Your task to perform on an android device: Open display settings Image 0: 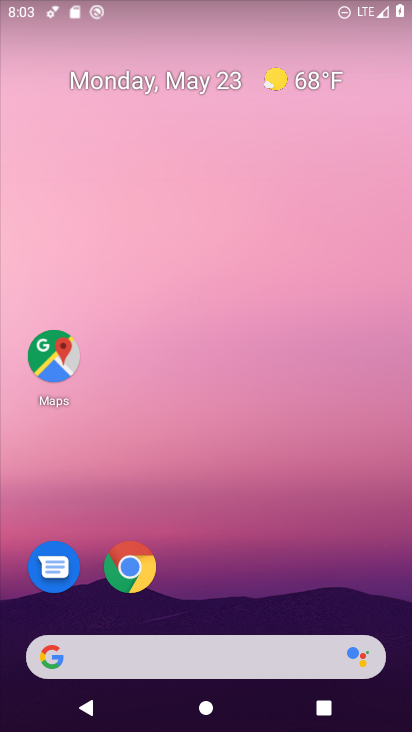
Step 0: drag from (166, 558) to (327, 149)
Your task to perform on an android device: Open display settings Image 1: 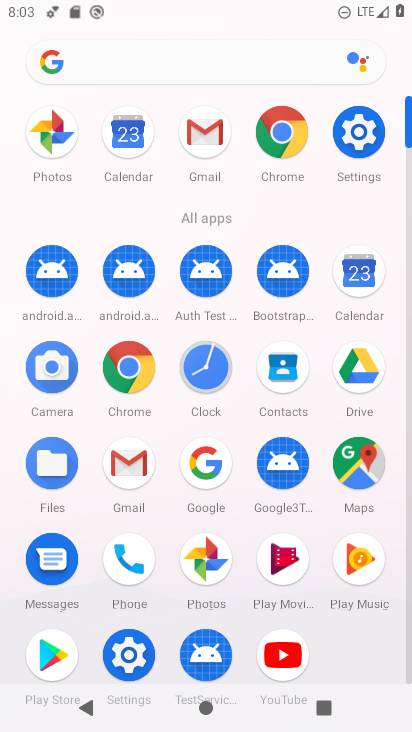
Step 1: click (364, 146)
Your task to perform on an android device: Open display settings Image 2: 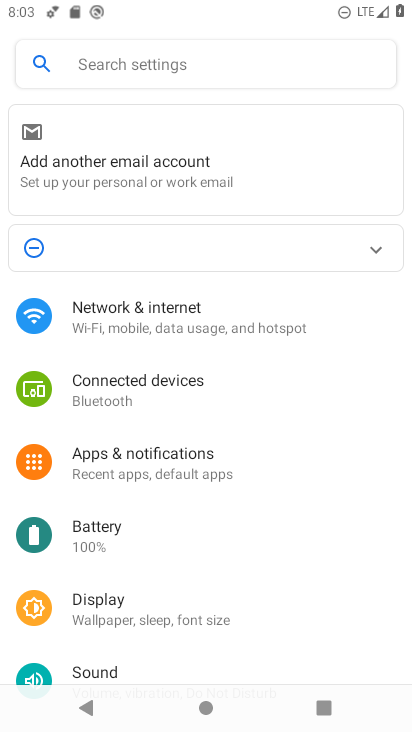
Step 2: drag from (179, 556) to (332, 322)
Your task to perform on an android device: Open display settings Image 3: 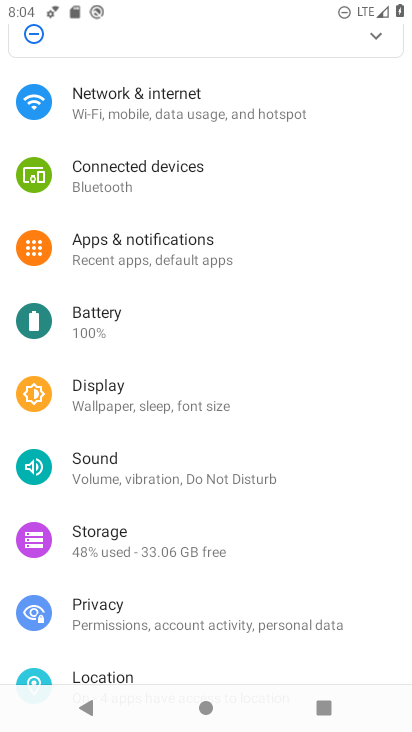
Step 3: drag from (203, 525) to (302, 237)
Your task to perform on an android device: Open display settings Image 4: 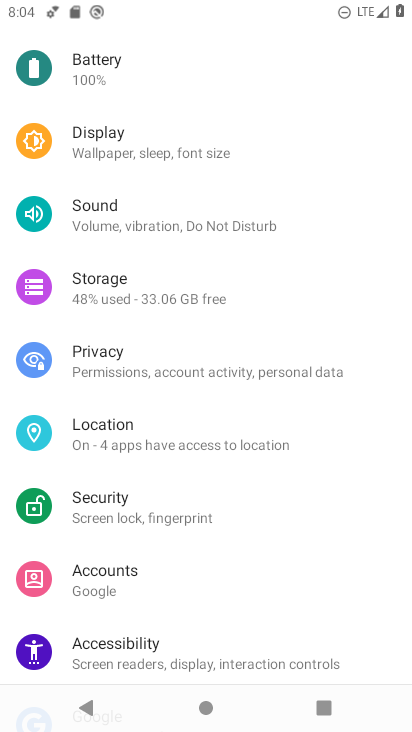
Step 4: click (177, 131)
Your task to perform on an android device: Open display settings Image 5: 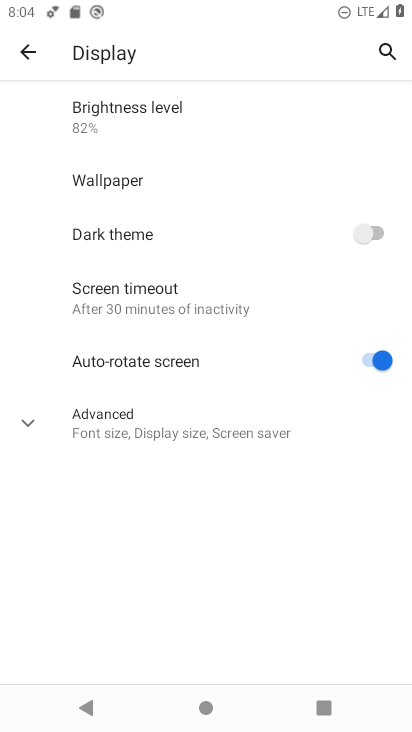
Step 5: task complete